Your task to perform on an android device: Go to calendar. Show me events next week Image 0: 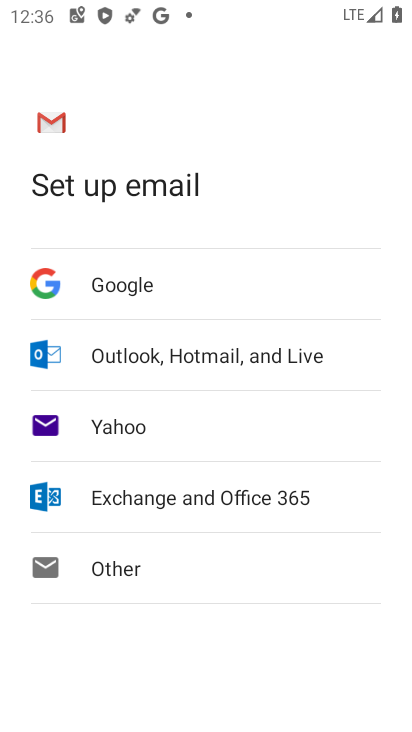
Step 0: press home button
Your task to perform on an android device: Go to calendar. Show me events next week Image 1: 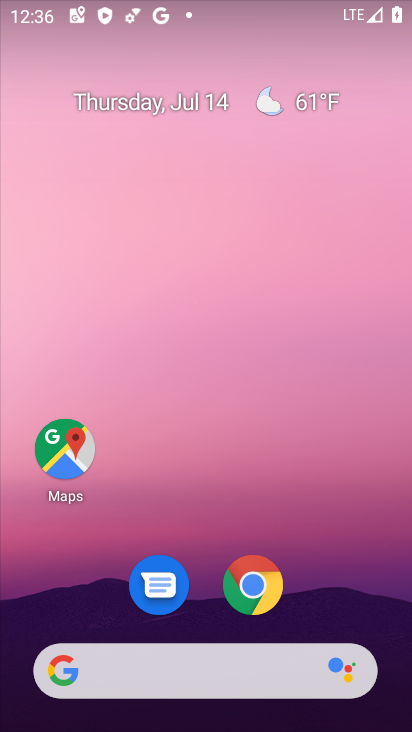
Step 1: drag from (326, 589) to (302, 67)
Your task to perform on an android device: Go to calendar. Show me events next week Image 2: 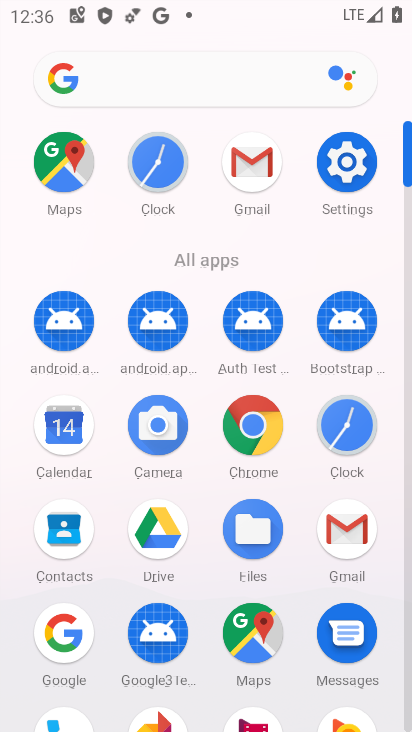
Step 2: click (77, 438)
Your task to perform on an android device: Go to calendar. Show me events next week Image 3: 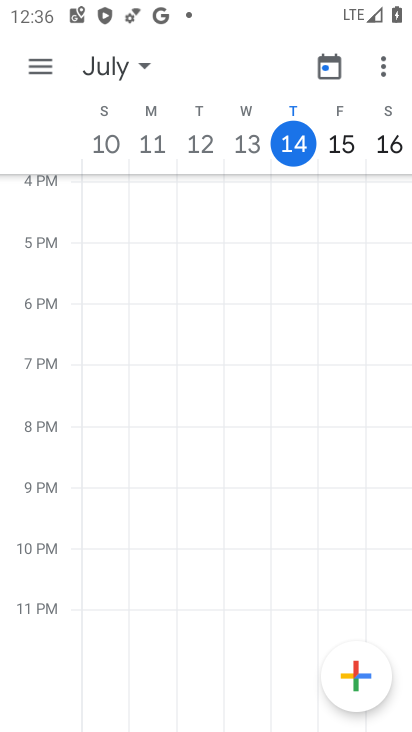
Step 3: task complete